Your task to perform on an android device: toggle translation in the chrome app Image 0: 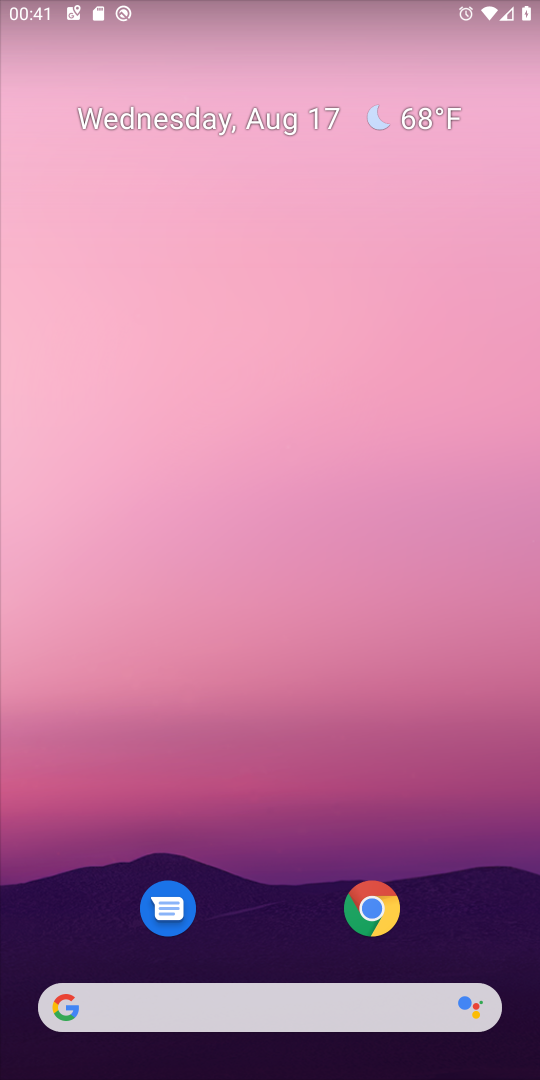
Step 0: click (385, 899)
Your task to perform on an android device: toggle translation in the chrome app Image 1: 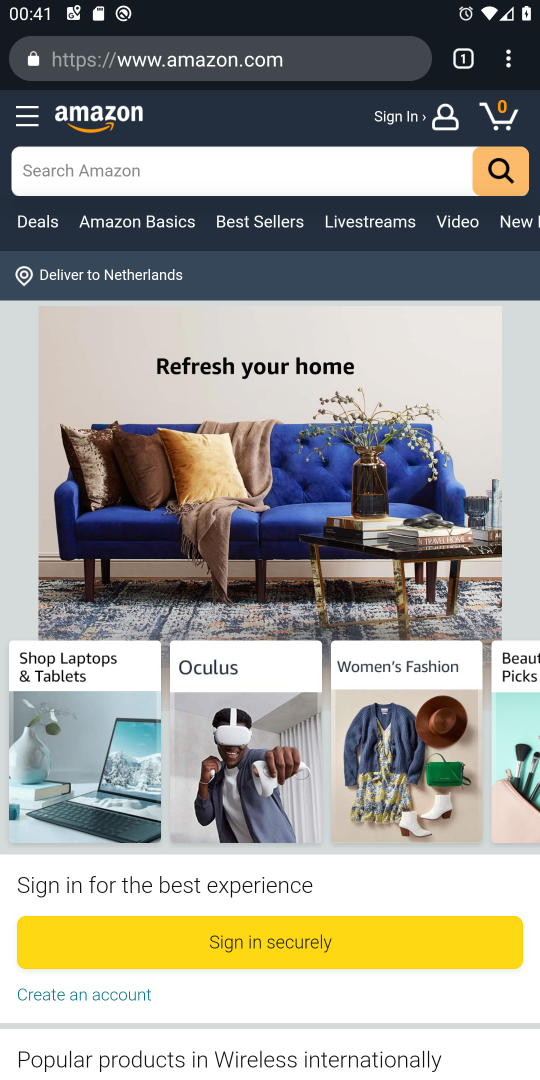
Step 1: click (505, 57)
Your task to perform on an android device: toggle translation in the chrome app Image 2: 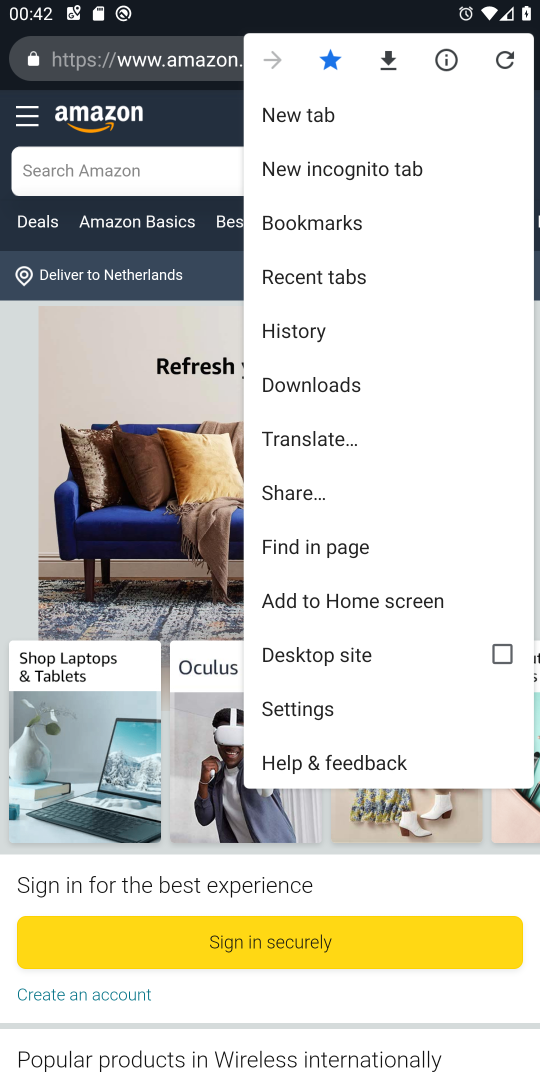
Step 2: click (333, 704)
Your task to perform on an android device: toggle translation in the chrome app Image 3: 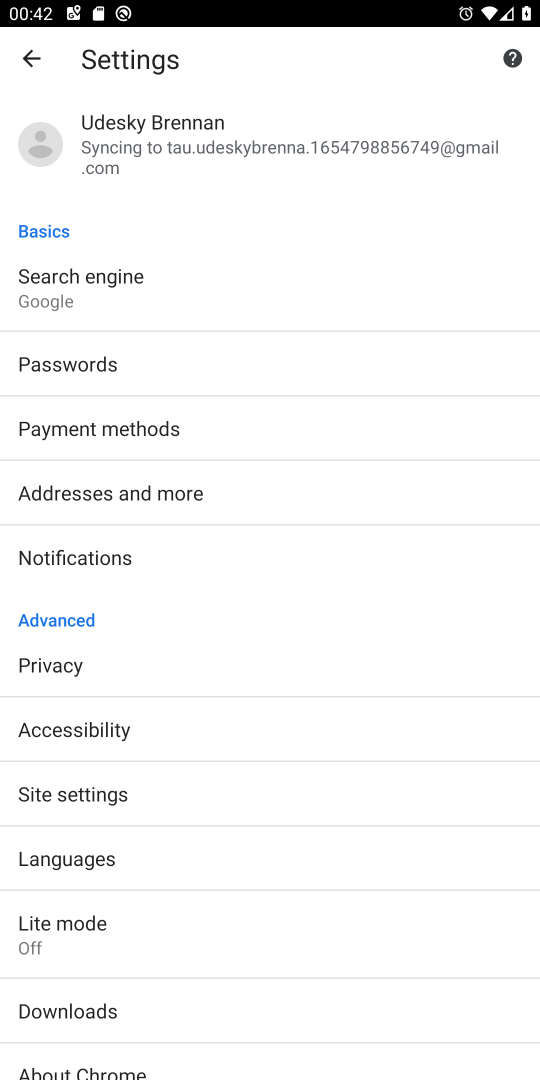
Step 3: click (120, 844)
Your task to perform on an android device: toggle translation in the chrome app Image 4: 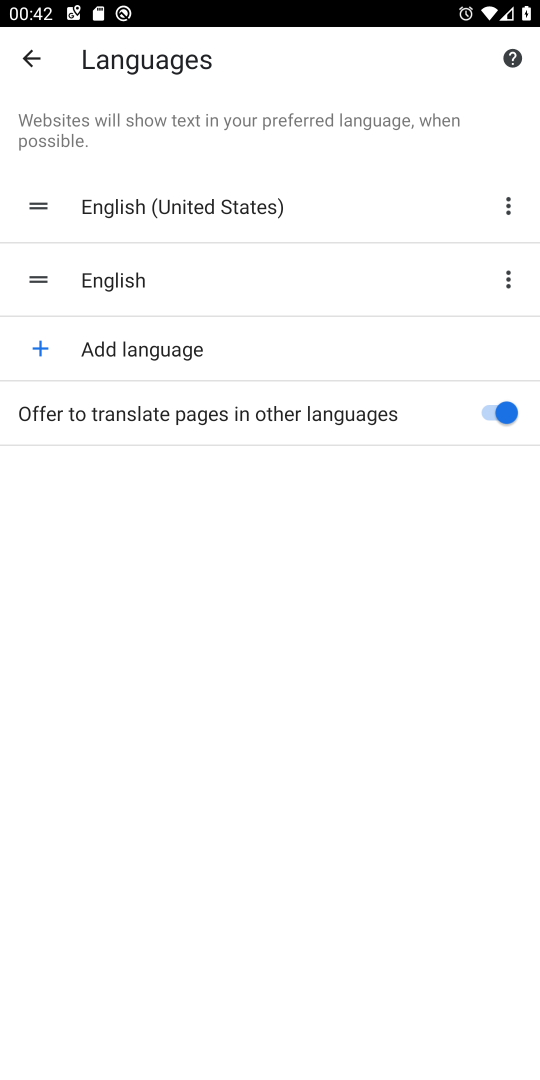
Step 4: click (486, 419)
Your task to perform on an android device: toggle translation in the chrome app Image 5: 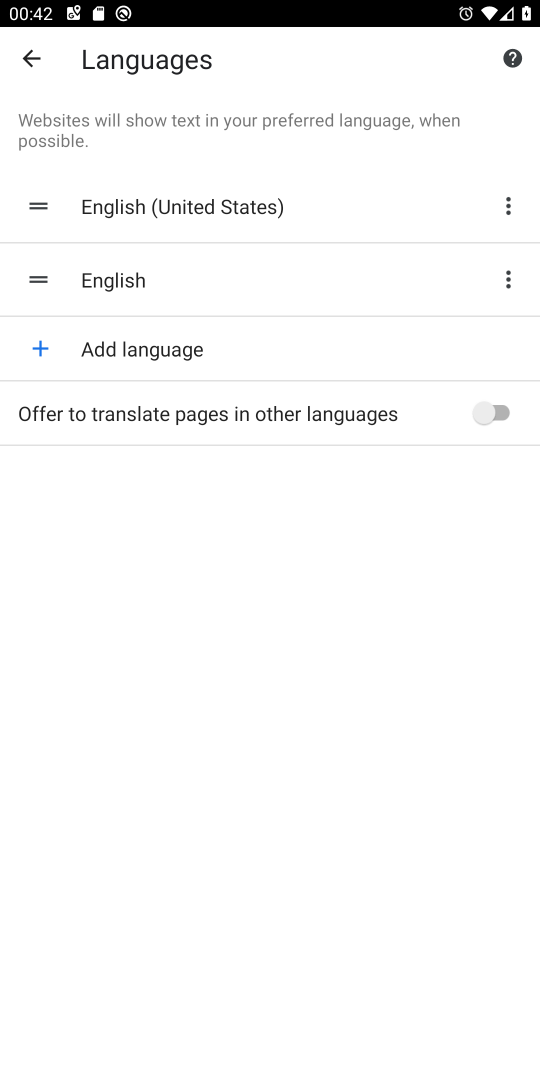
Step 5: task complete